Your task to perform on an android device: Is it going to rain this weekend? Image 0: 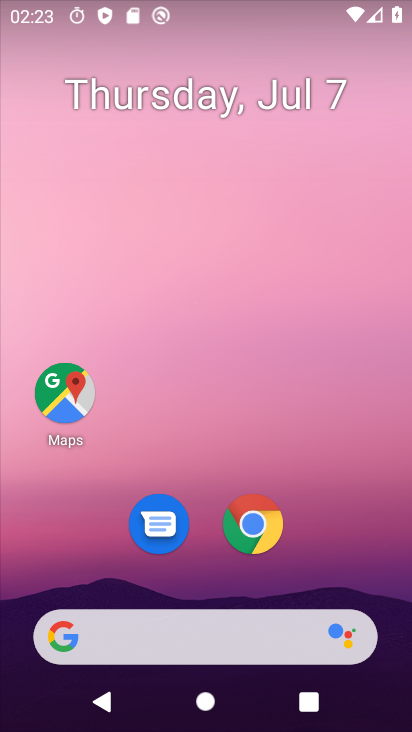
Step 0: click (179, 631)
Your task to perform on an android device: Is it going to rain this weekend? Image 1: 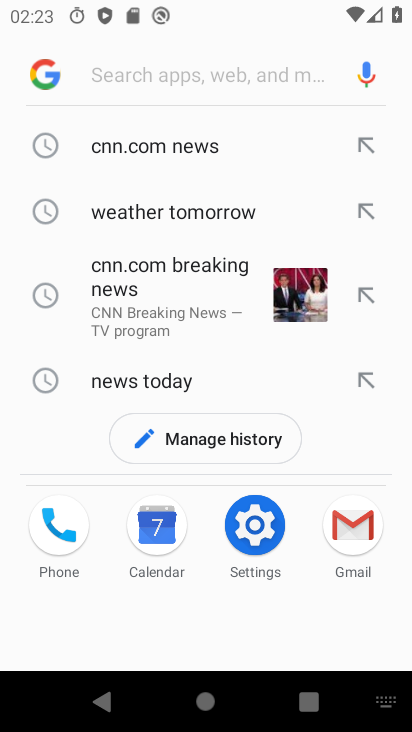
Step 1: click (211, 204)
Your task to perform on an android device: Is it going to rain this weekend? Image 2: 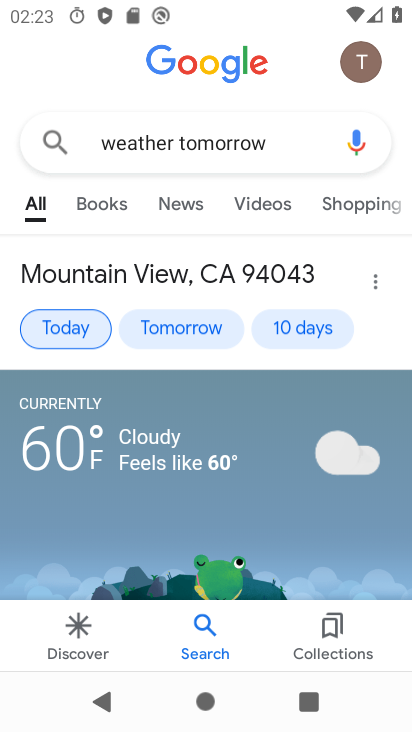
Step 2: click (76, 329)
Your task to perform on an android device: Is it going to rain this weekend? Image 3: 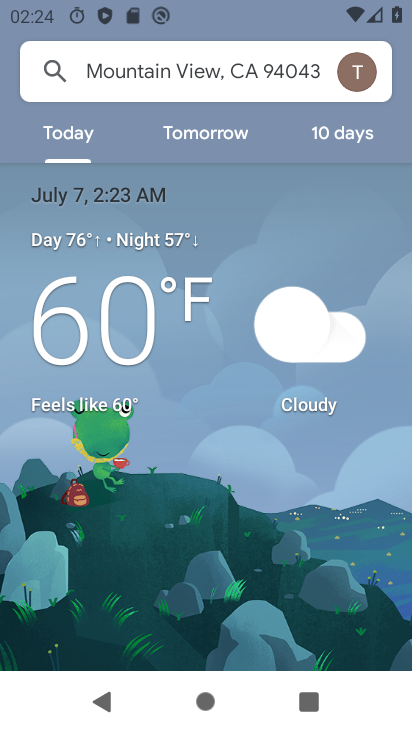
Step 3: task complete